Your task to perform on an android device: turn off priority inbox in the gmail app Image 0: 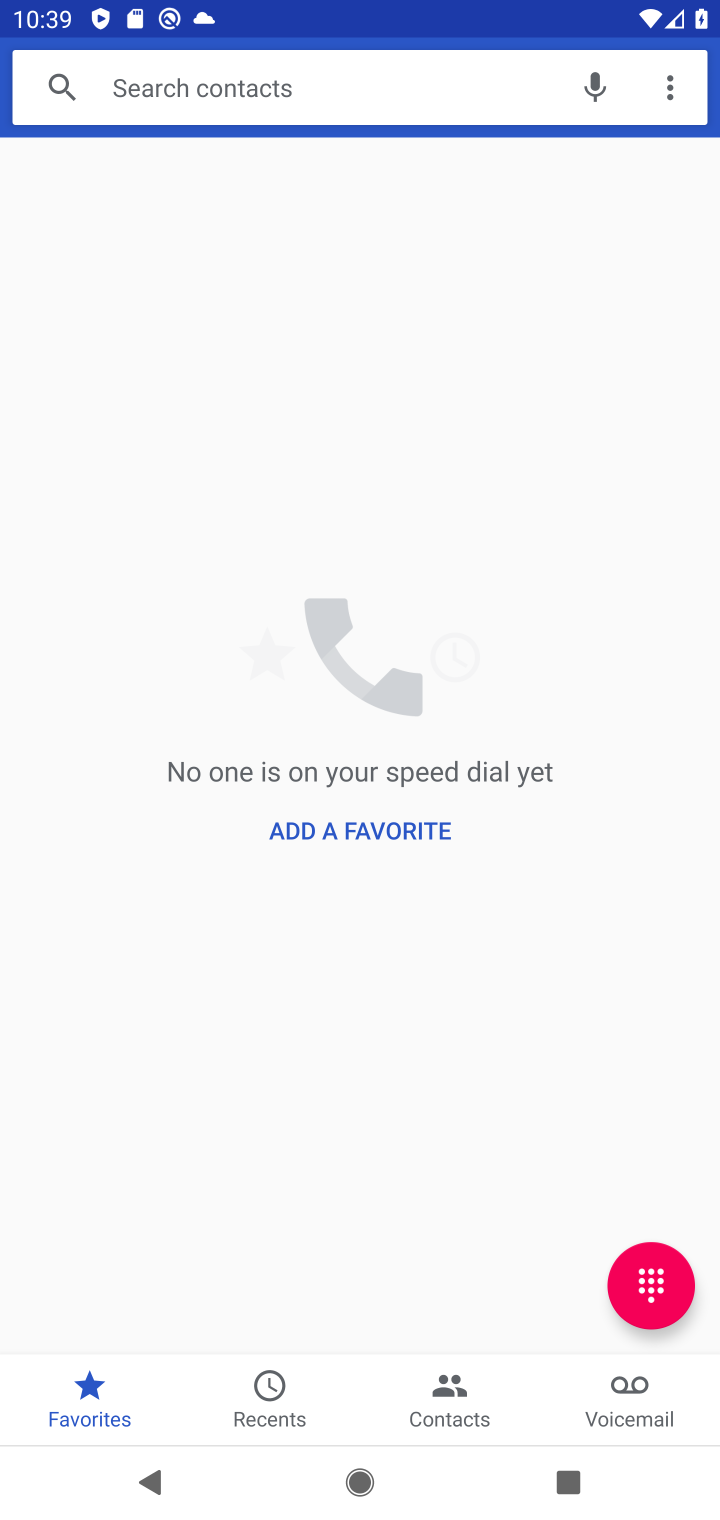
Step 0: press back button
Your task to perform on an android device: turn off priority inbox in the gmail app Image 1: 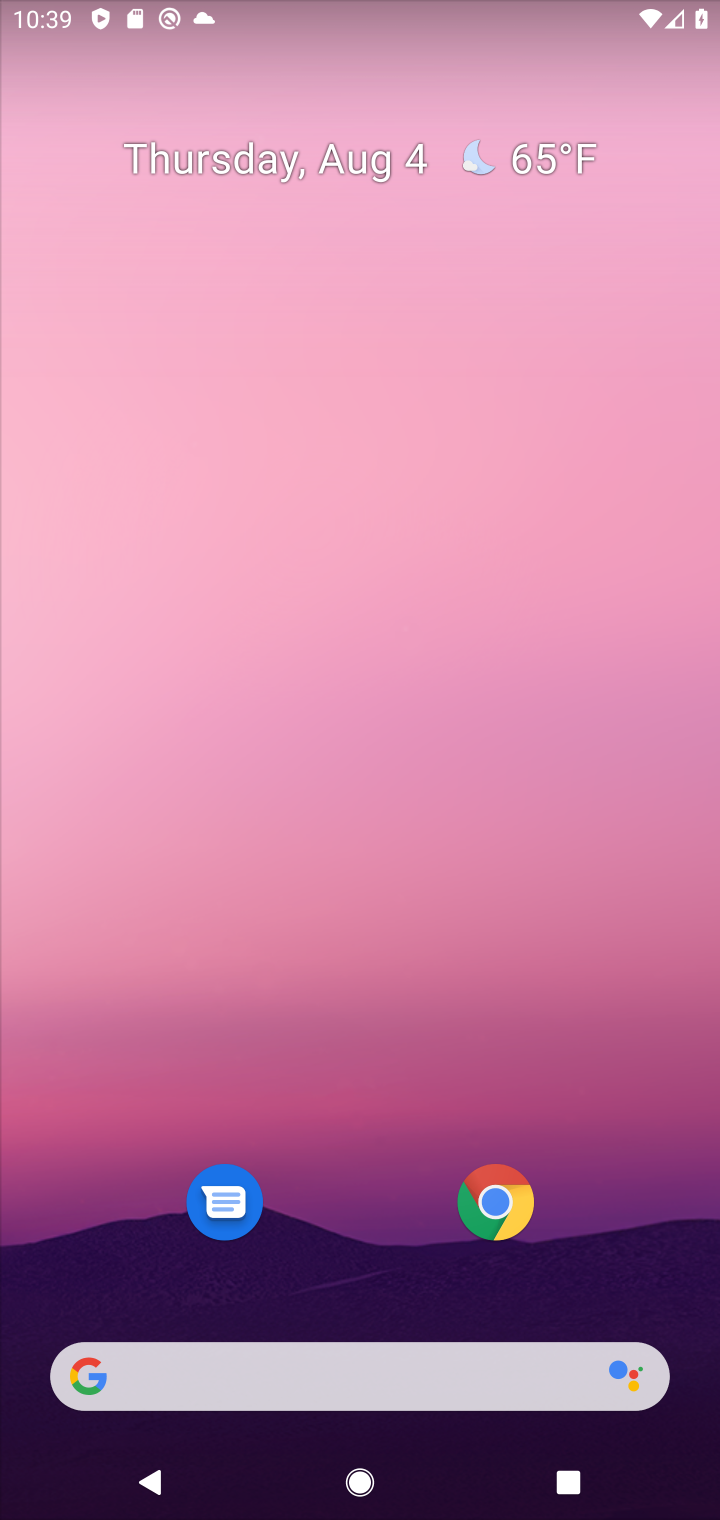
Step 1: drag from (333, 1067) to (516, 79)
Your task to perform on an android device: turn off priority inbox in the gmail app Image 2: 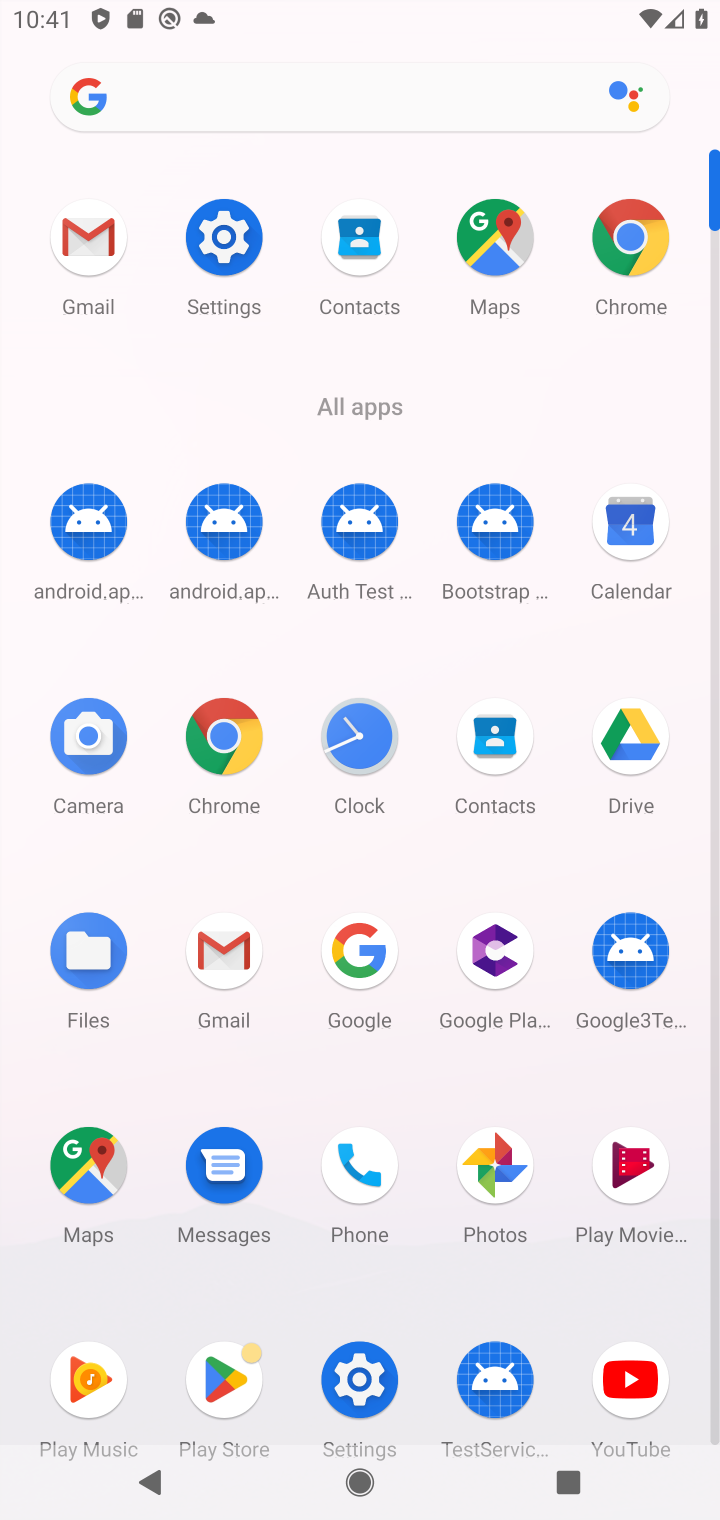
Step 2: click (220, 942)
Your task to perform on an android device: turn off priority inbox in the gmail app Image 3: 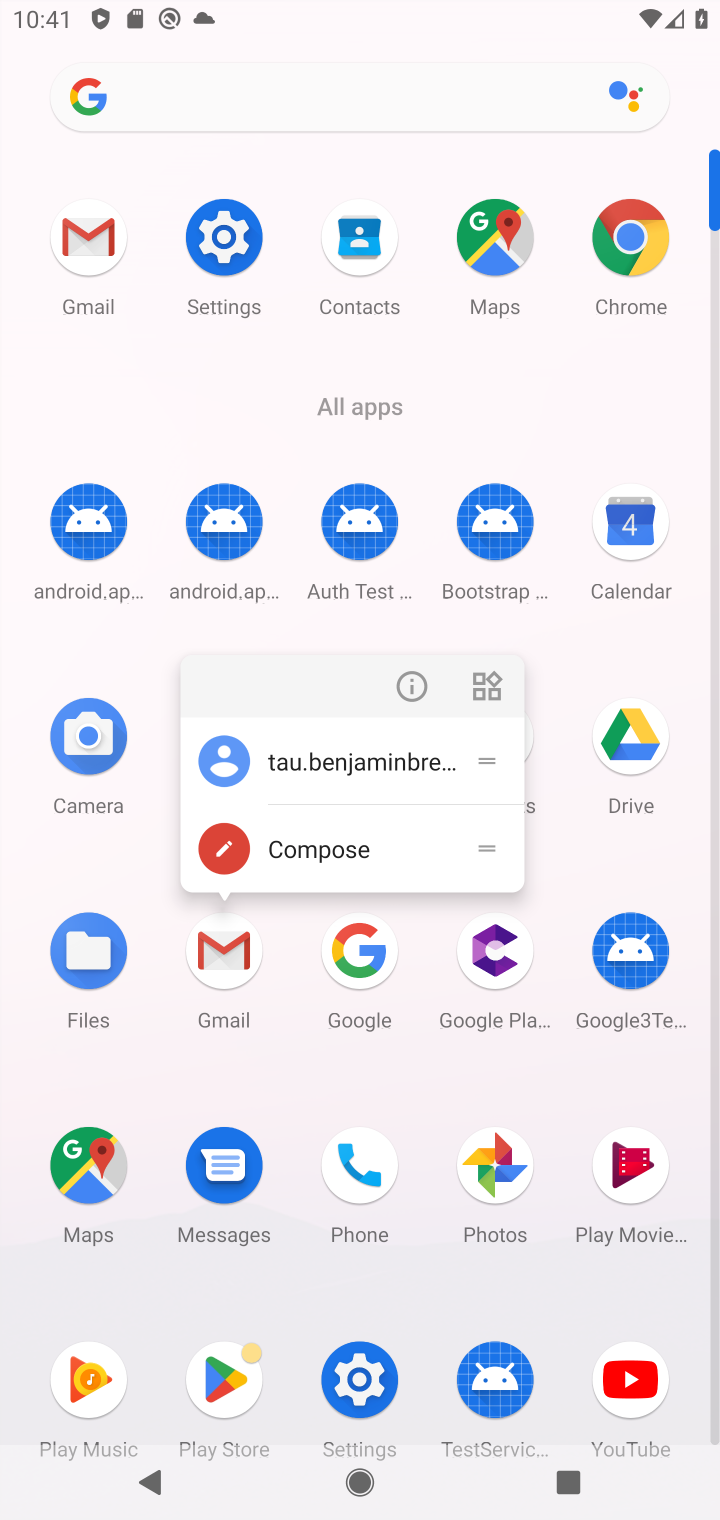
Step 3: click (224, 965)
Your task to perform on an android device: turn off priority inbox in the gmail app Image 4: 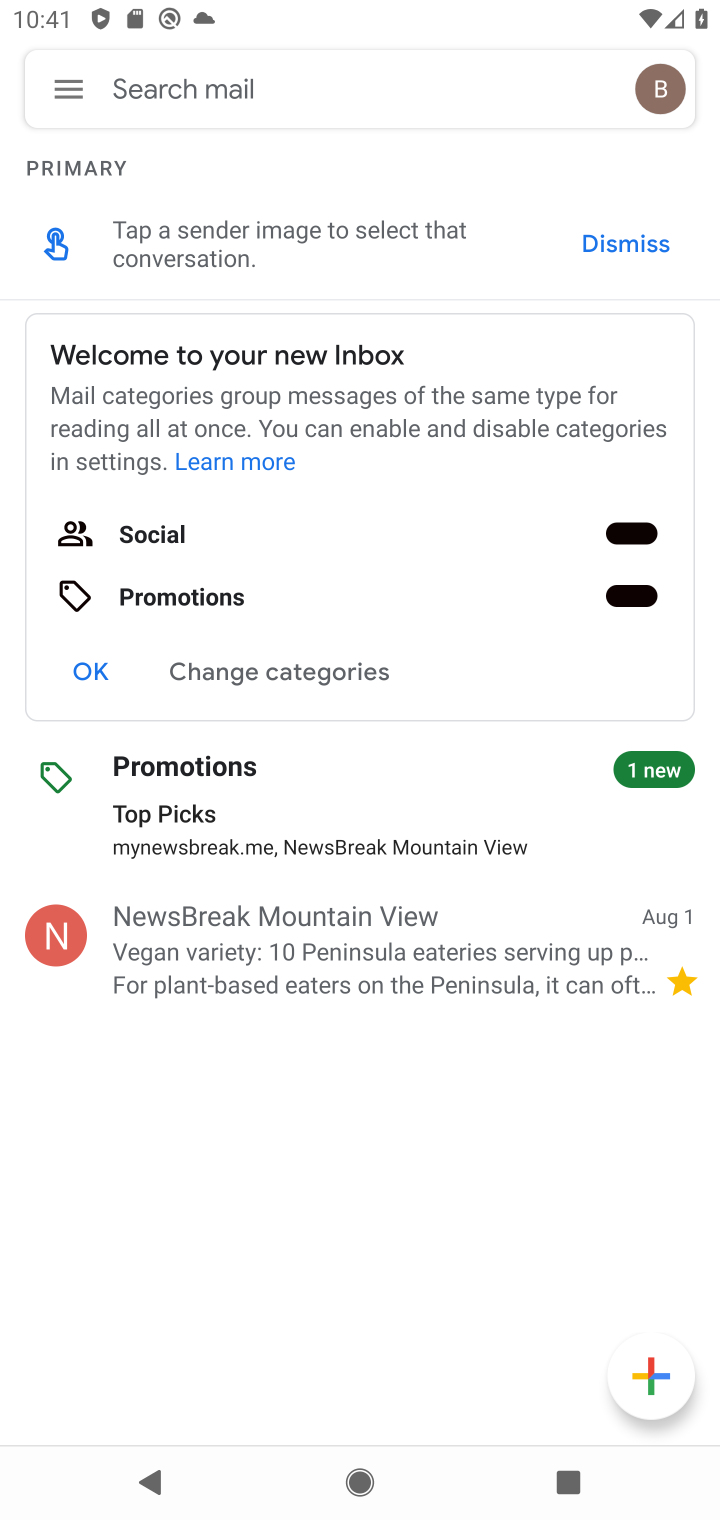
Step 4: click (62, 94)
Your task to perform on an android device: turn off priority inbox in the gmail app Image 5: 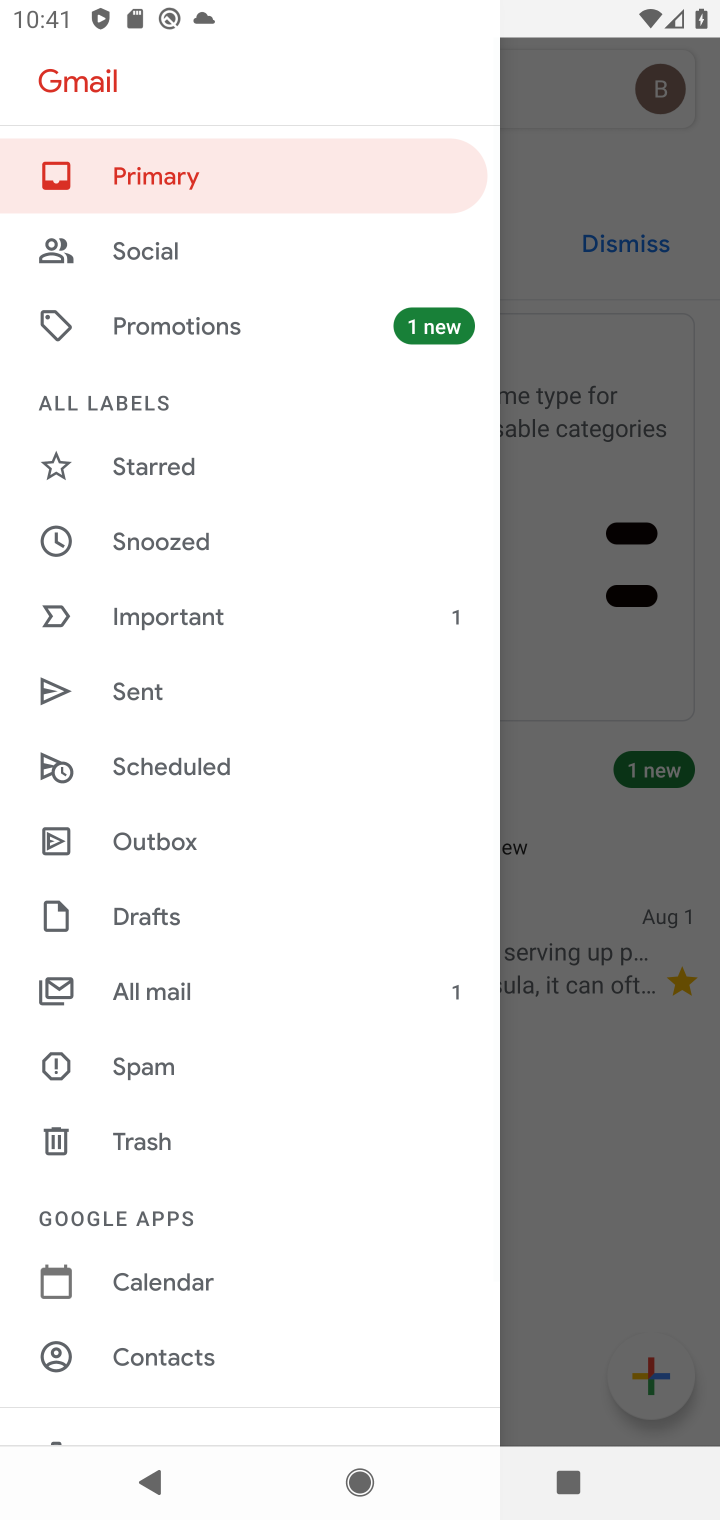
Step 5: drag from (169, 1055) to (270, 105)
Your task to perform on an android device: turn off priority inbox in the gmail app Image 6: 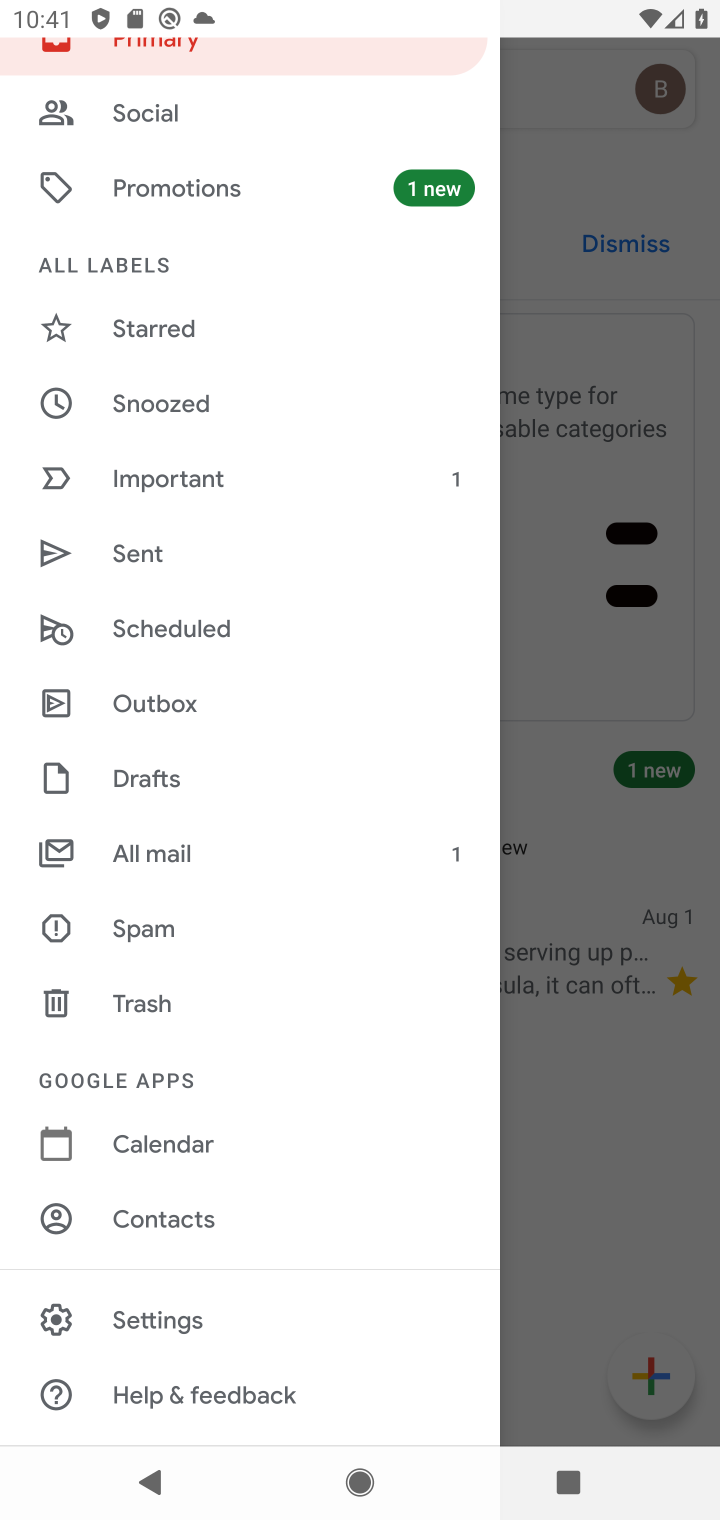
Step 6: click (162, 1328)
Your task to perform on an android device: turn off priority inbox in the gmail app Image 7: 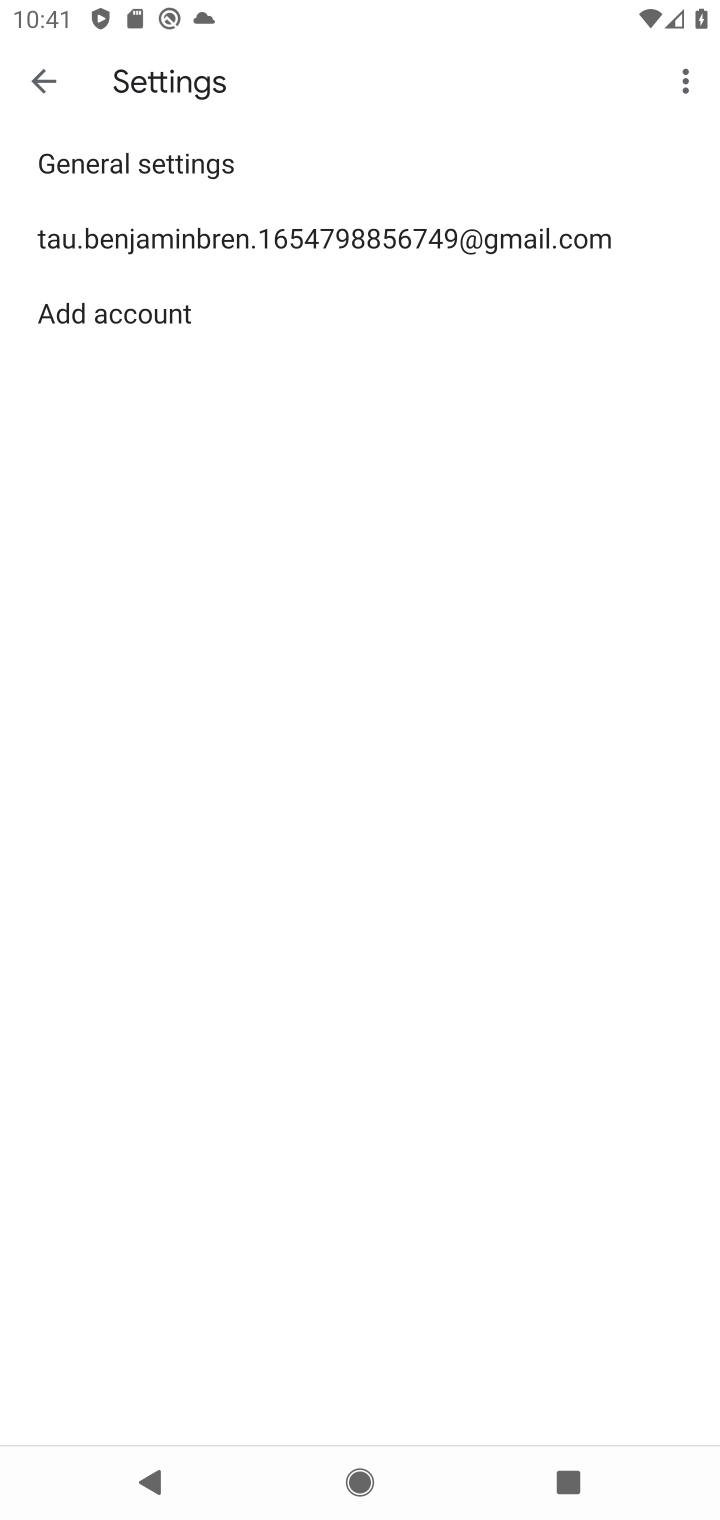
Step 7: click (214, 251)
Your task to perform on an android device: turn off priority inbox in the gmail app Image 8: 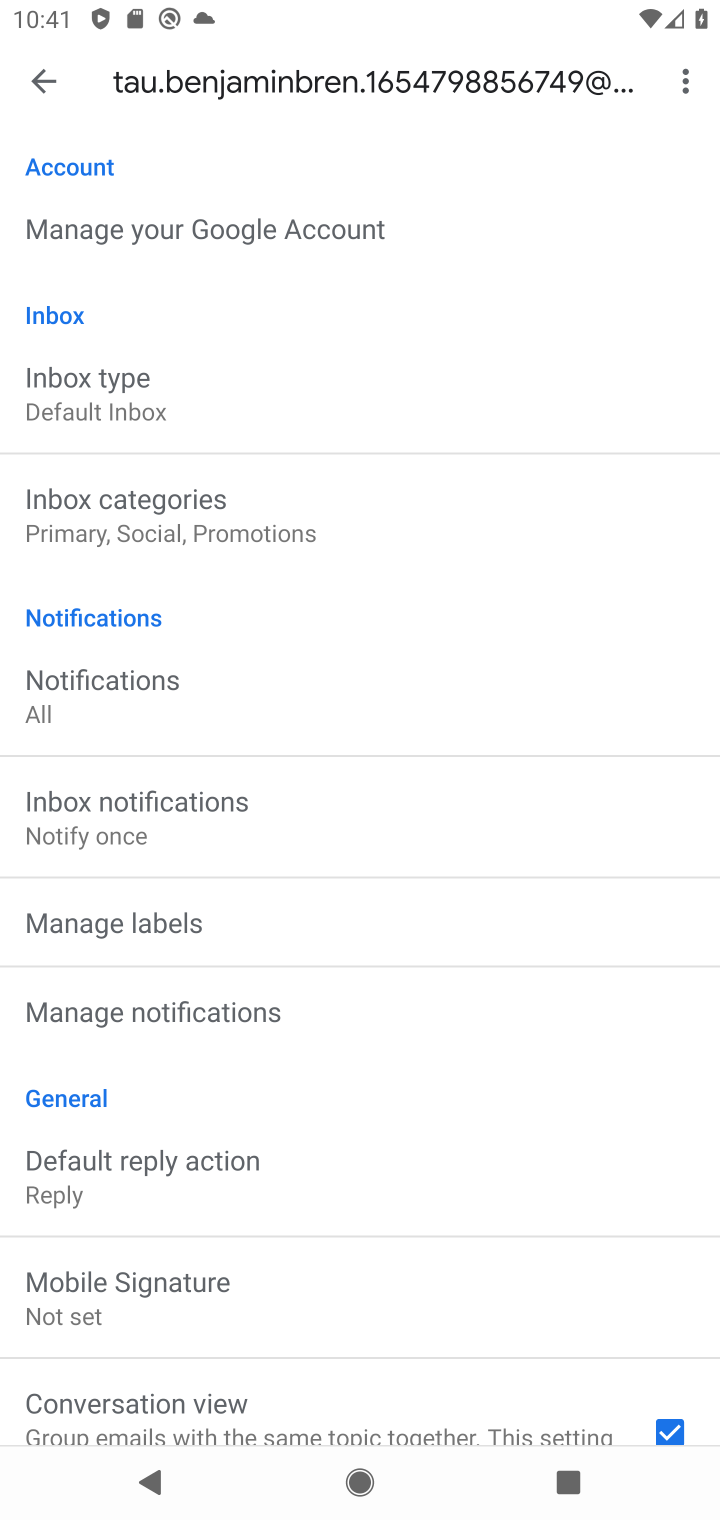
Step 8: click (199, 405)
Your task to perform on an android device: turn off priority inbox in the gmail app Image 9: 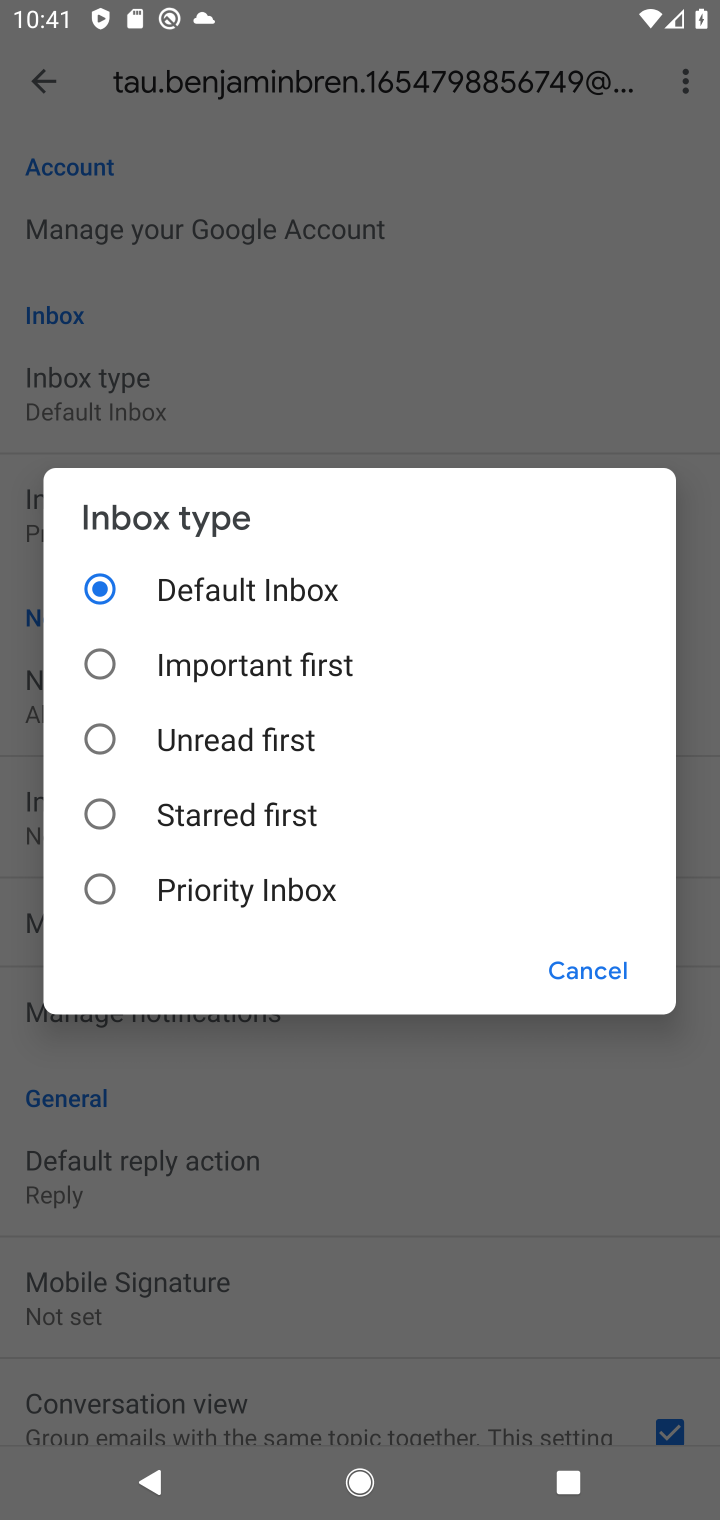
Step 9: task complete